Your task to perform on an android device: toggle location history Image 0: 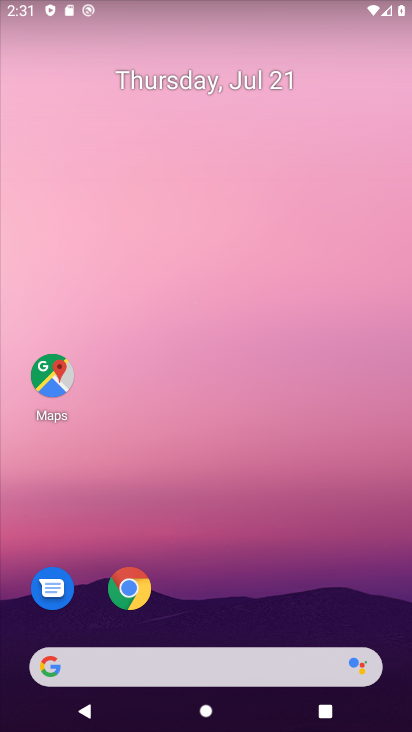
Step 0: drag from (259, 593) to (181, 148)
Your task to perform on an android device: toggle location history Image 1: 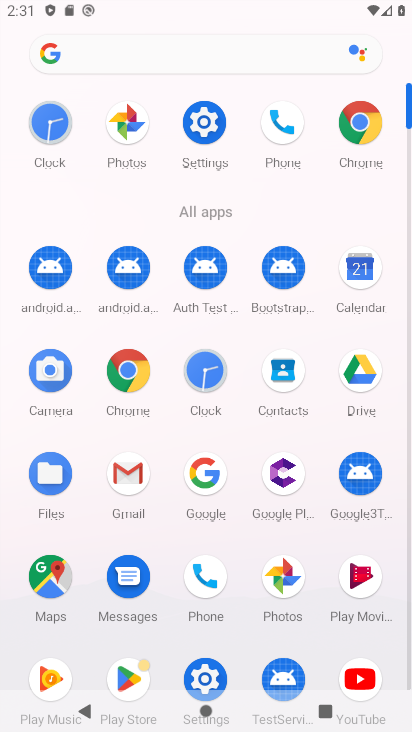
Step 1: click (47, 582)
Your task to perform on an android device: toggle location history Image 2: 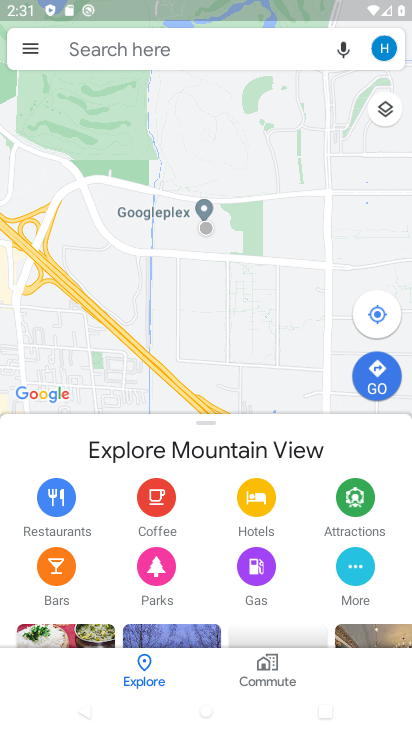
Step 2: click (29, 46)
Your task to perform on an android device: toggle location history Image 3: 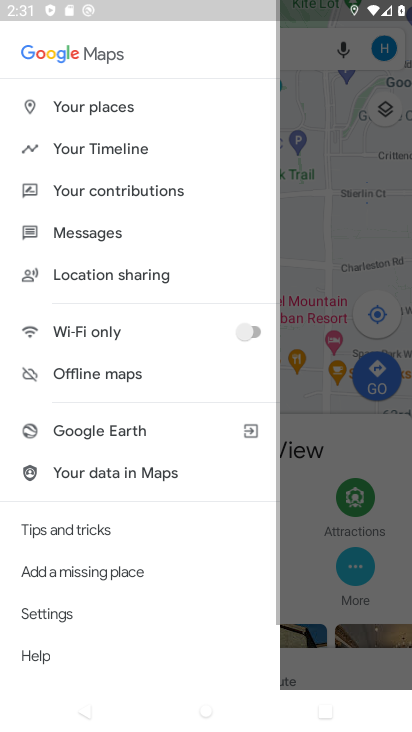
Step 3: click (81, 145)
Your task to perform on an android device: toggle location history Image 4: 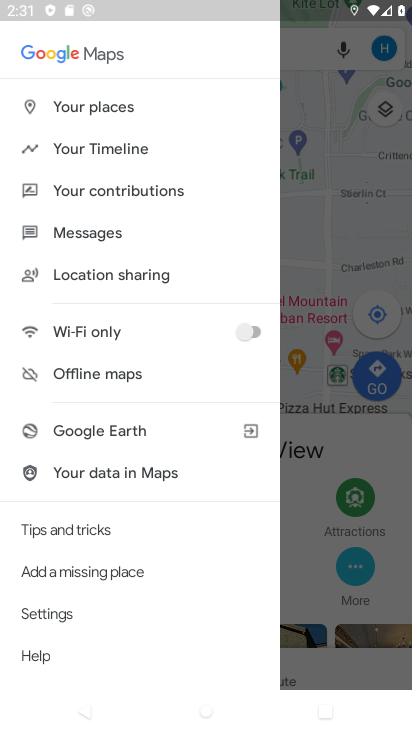
Step 4: click (101, 149)
Your task to perform on an android device: toggle location history Image 5: 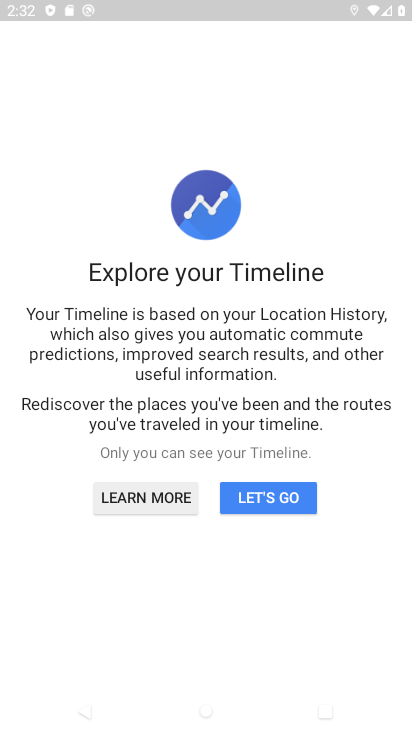
Step 5: click (270, 501)
Your task to perform on an android device: toggle location history Image 6: 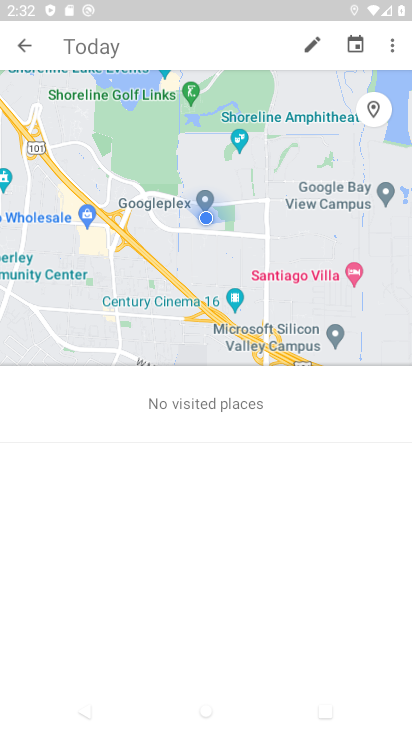
Step 6: click (389, 43)
Your task to perform on an android device: toggle location history Image 7: 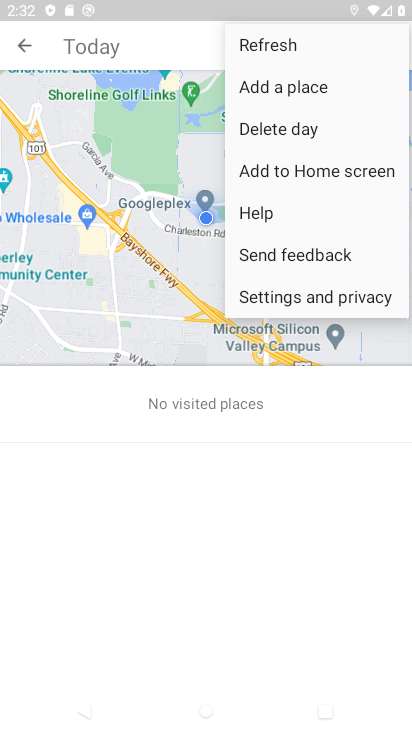
Step 7: click (304, 294)
Your task to perform on an android device: toggle location history Image 8: 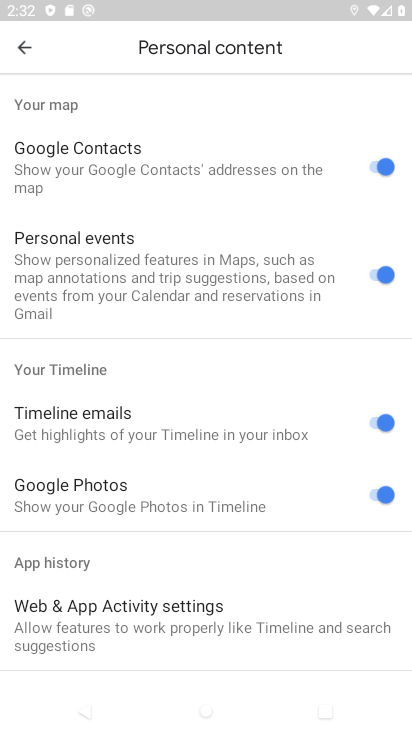
Step 8: drag from (304, 564) to (242, 149)
Your task to perform on an android device: toggle location history Image 9: 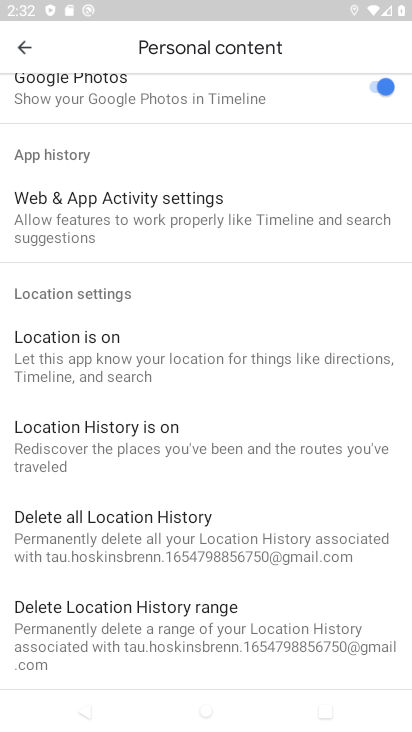
Step 9: click (72, 424)
Your task to perform on an android device: toggle location history Image 10: 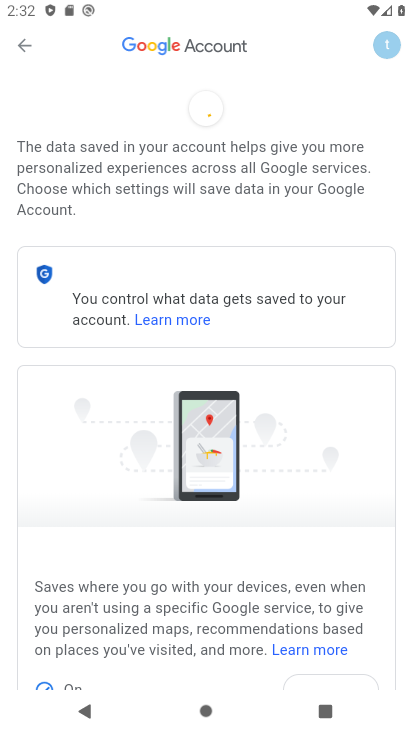
Step 10: click (82, 425)
Your task to perform on an android device: toggle location history Image 11: 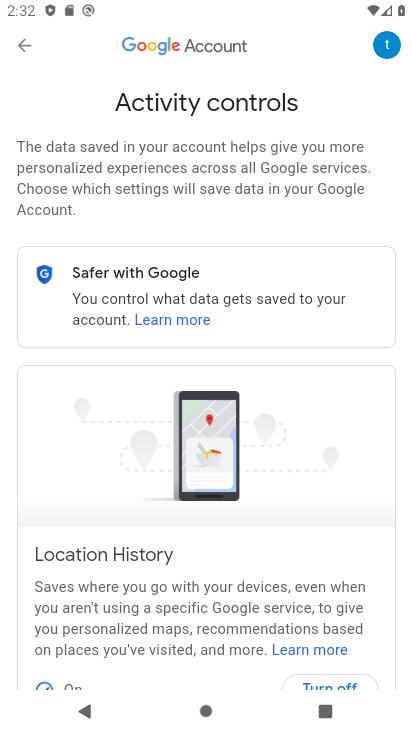
Step 11: drag from (300, 531) to (291, 334)
Your task to perform on an android device: toggle location history Image 12: 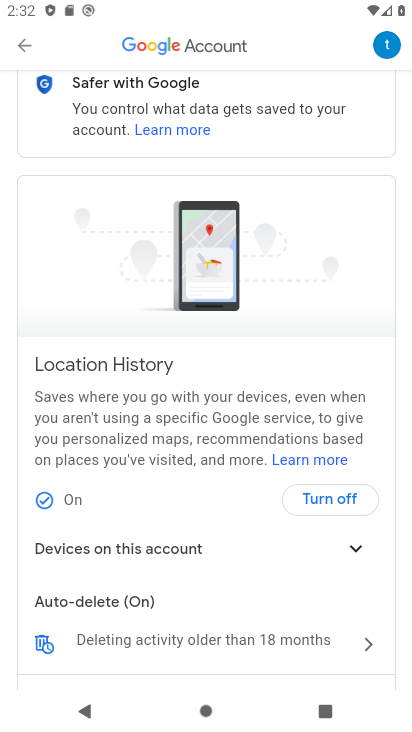
Step 12: click (323, 499)
Your task to perform on an android device: toggle location history Image 13: 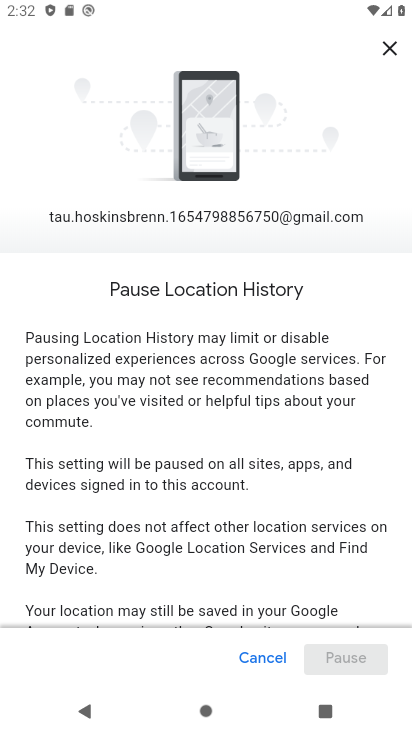
Step 13: drag from (290, 548) to (265, 299)
Your task to perform on an android device: toggle location history Image 14: 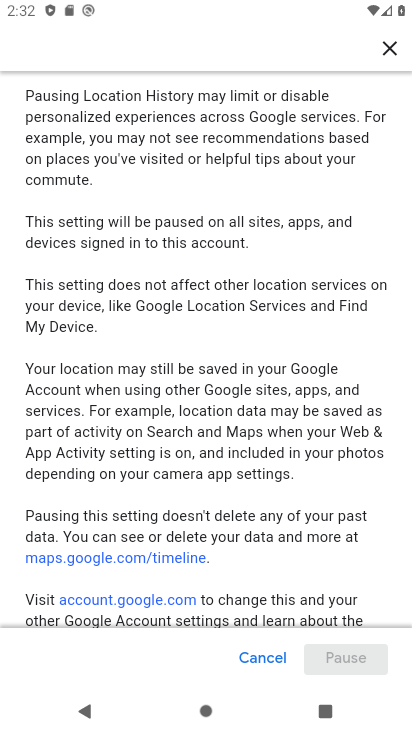
Step 14: drag from (285, 550) to (283, 251)
Your task to perform on an android device: toggle location history Image 15: 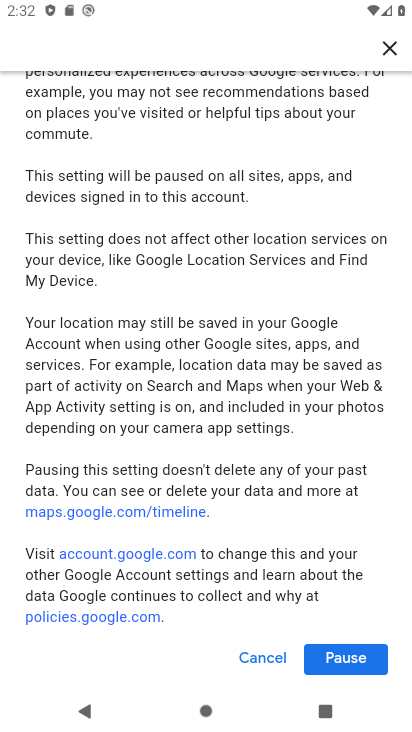
Step 15: click (344, 659)
Your task to perform on an android device: toggle location history Image 16: 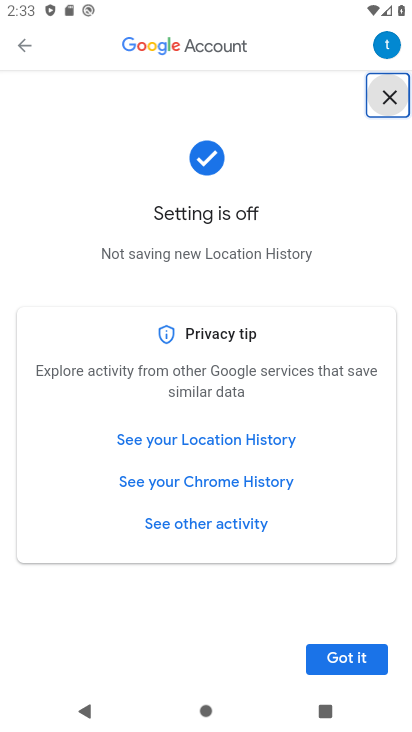
Step 16: click (340, 659)
Your task to perform on an android device: toggle location history Image 17: 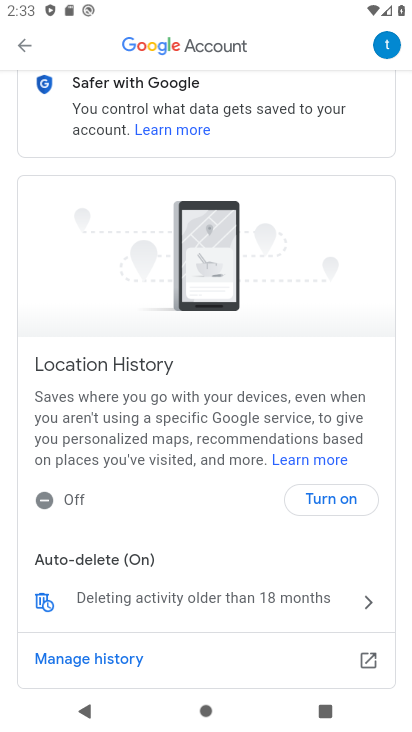
Step 17: task complete